Your task to perform on an android device: What is the speed of a plane? Image 0: 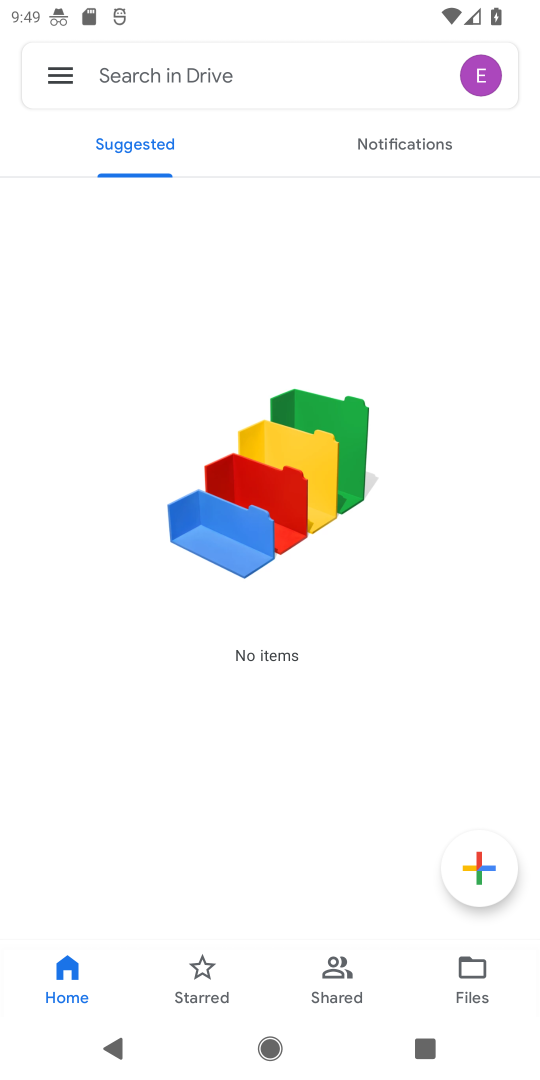
Step 0: press home button
Your task to perform on an android device: What is the speed of a plane? Image 1: 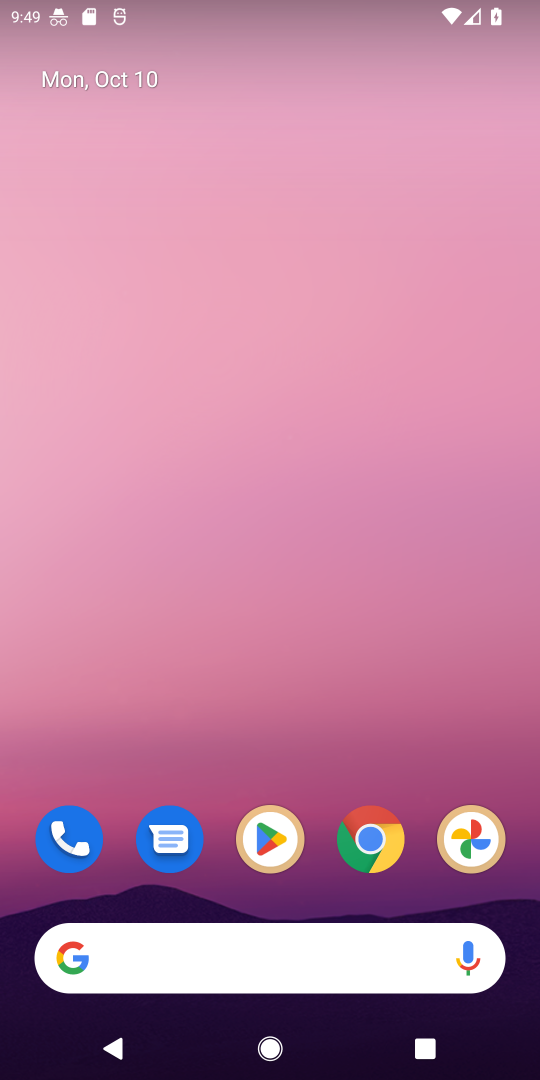
Step 1: drag from (318, 777) to (376, 18)
Your task to perform on an android device: What is the speed of a plane? Image 2: 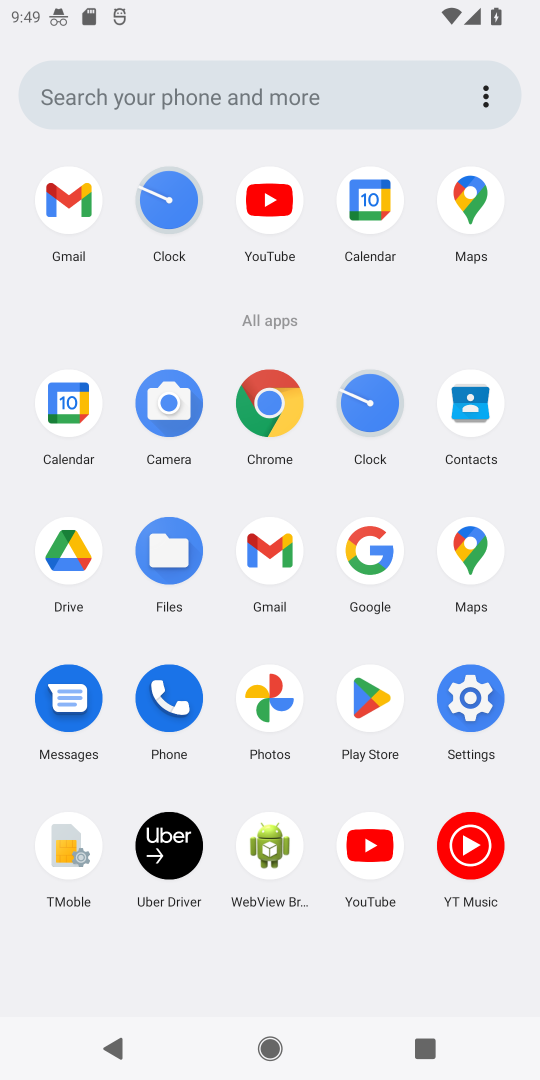
Step 2: click (267, 412)
Your task to perform on an android device: What is the speed of a plane? Image 3: 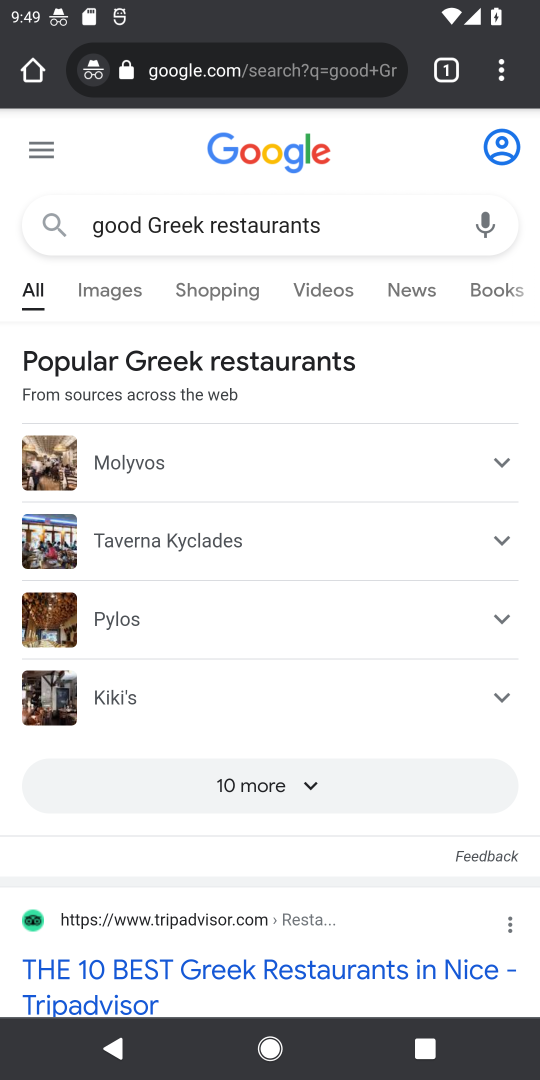
Step 3: click (238, 72)
Your task to perform on an android device: What is the speed of a plane? Image 4: 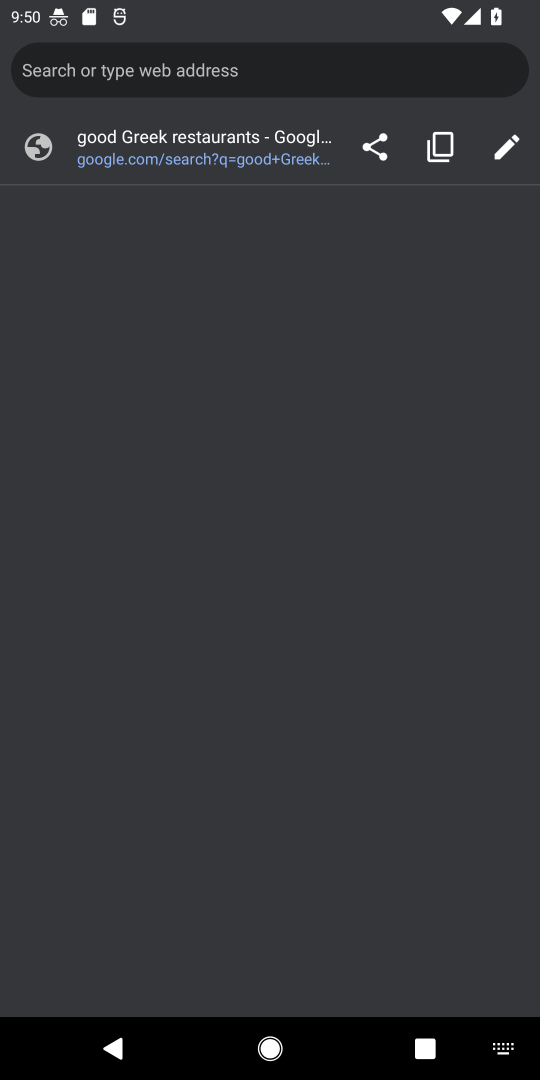
Step 4: type "What is the speed of a plane?"
Your task to perform on an android device: What is the speed of a plane? Image 5: 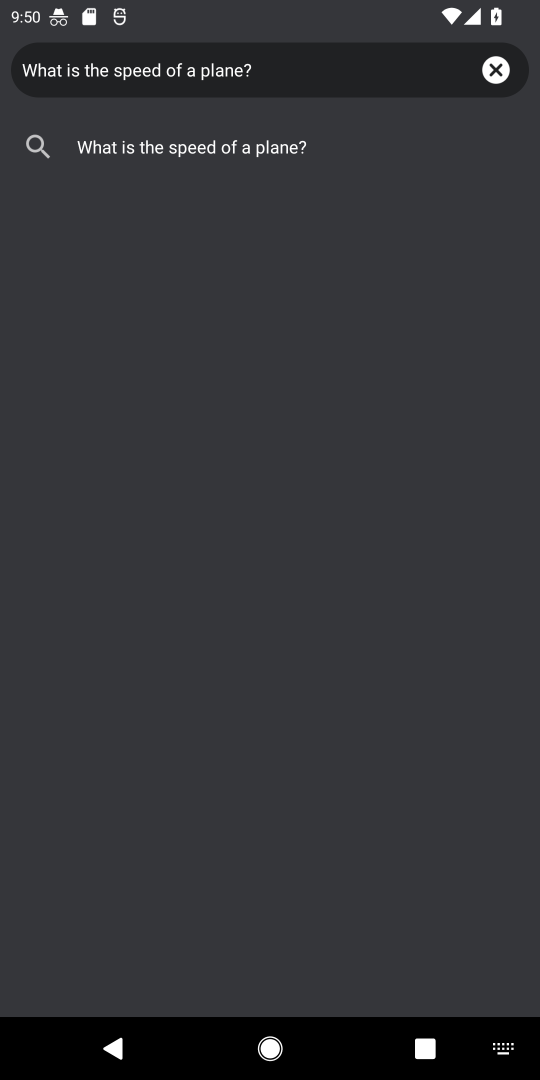
Step 5: press enter
Your task to perform on an android device: What is the speed of a plane? Image 6: 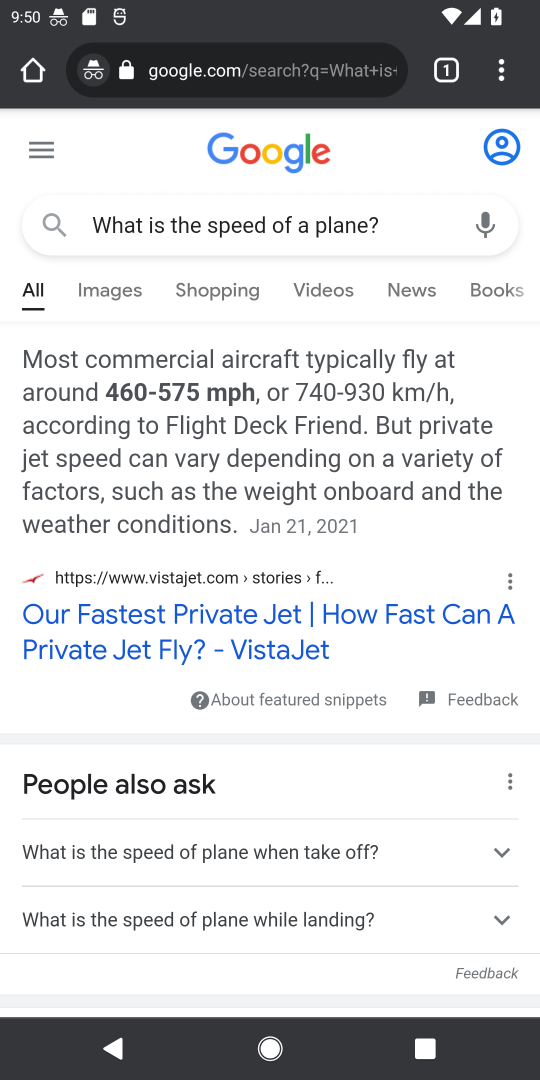
Step 6: task complete